Your task to perform on an android device: choose inbox layout in the gmail app Image 0: 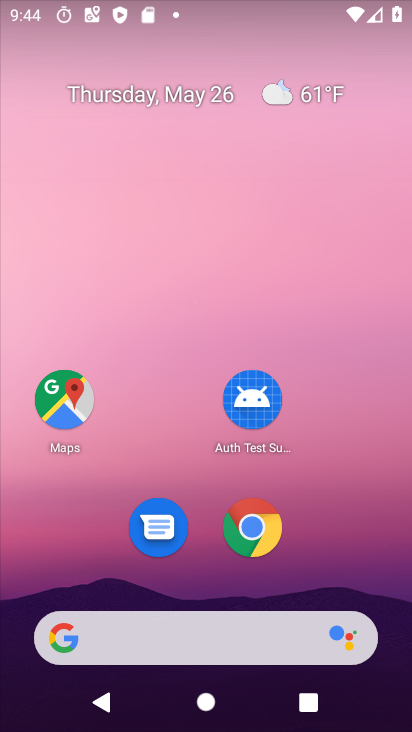
Step 0: drag from (379, 522) to (327, 36)
Your task to perform on an android device: choose inbox layout in the gmail app Image 1: 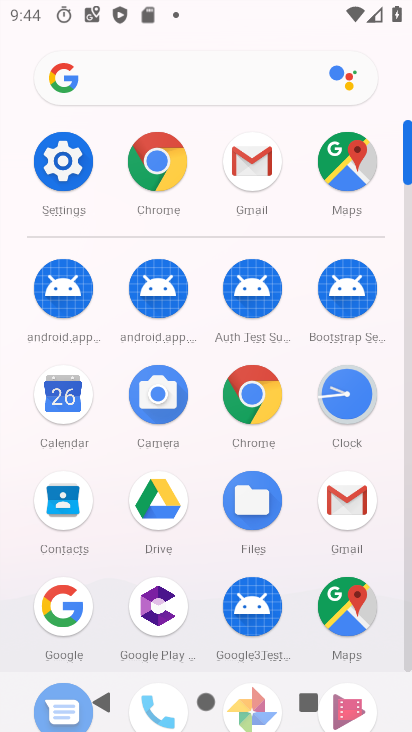
Step 1: click (240, 173)
Your task to perform on an android device: choose inbox layout in the gmail app Image 2: 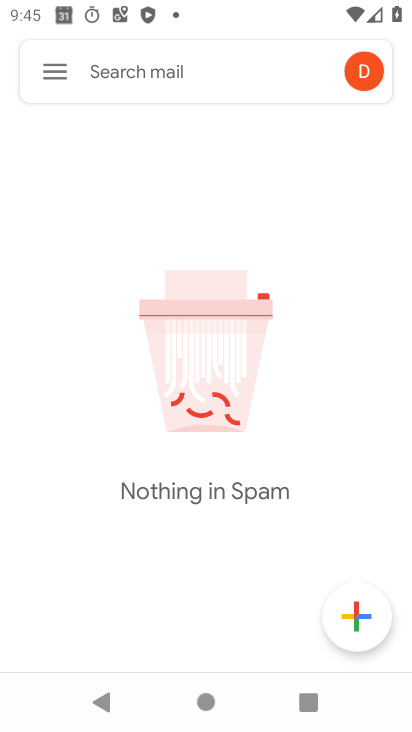
Step 2: click (71, 48)
Your task to perform on an android device: choose inbox layout in the gmail app Image 3: 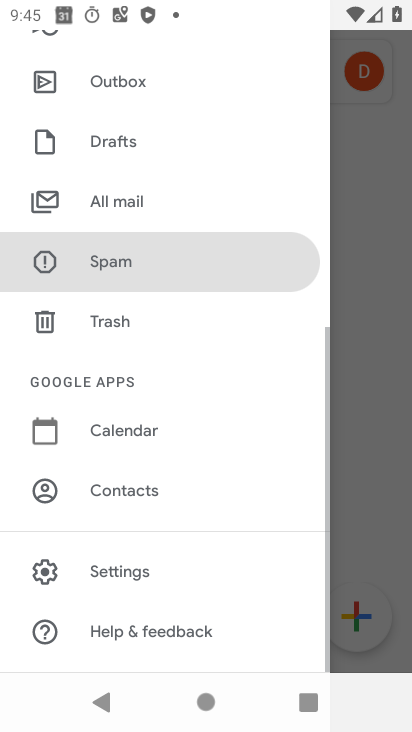
Step 3: click (155, 582)
Your task to perform on an android device: choose inbox layout in the gmail app Image 4: 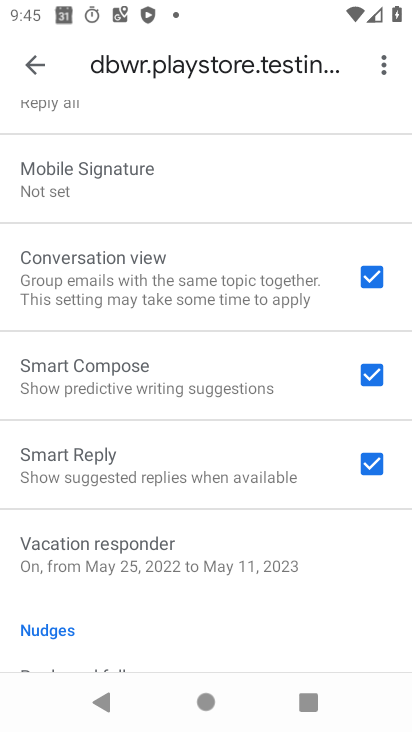
Step 4: drag from (130, 313) to (173, 675)
Your task to perform on an android device: choose inbox layout in the gmail app Image 5: 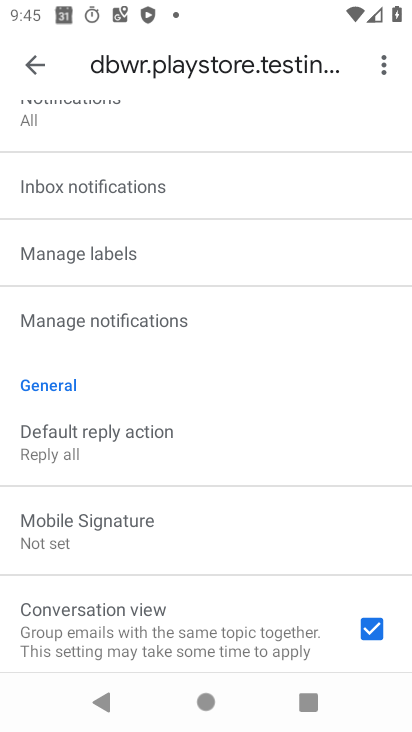
Step 5: drag from (142, 266) to (211, 655)
Your task to perform on an android device: choose inbox layout in the gmail app Image 6: 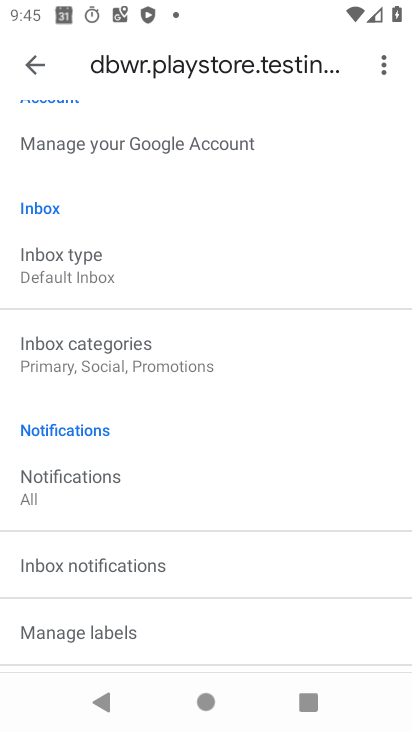
Step 6: drag from (148, 255) to (166, 575)
Your task to perform on an android device: choose inbox layout in the gmail app Image 7: 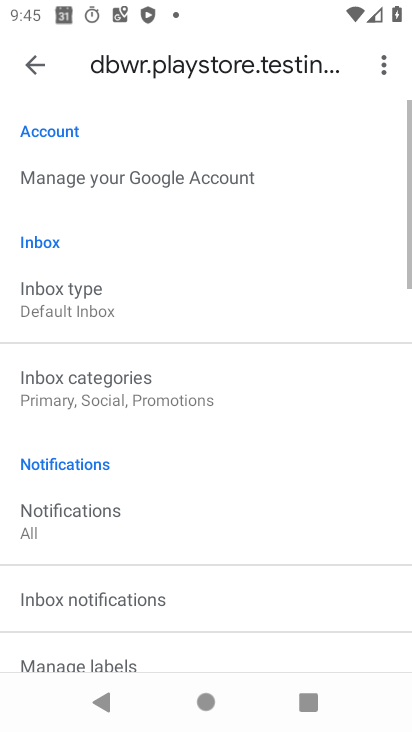
Step 7: click (58, 314)
Your task to perform on an android device: choose inbox layout in the gmail app Image 8: 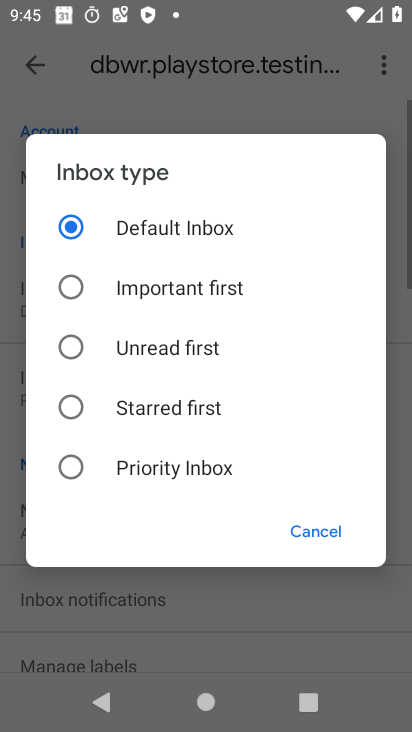
Step 8: click (55, 355)
Your task to perform on an android device: choose inbox layout in the gmail app Image 9: 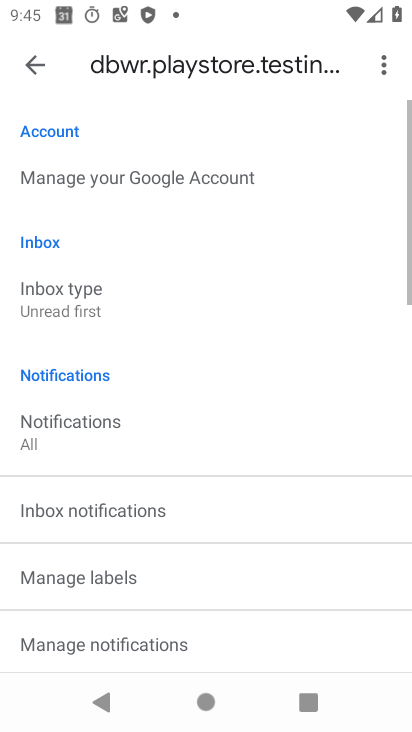
Step 9: task complete